Your task to perform on an android device: empty trash in google photos Image 0: 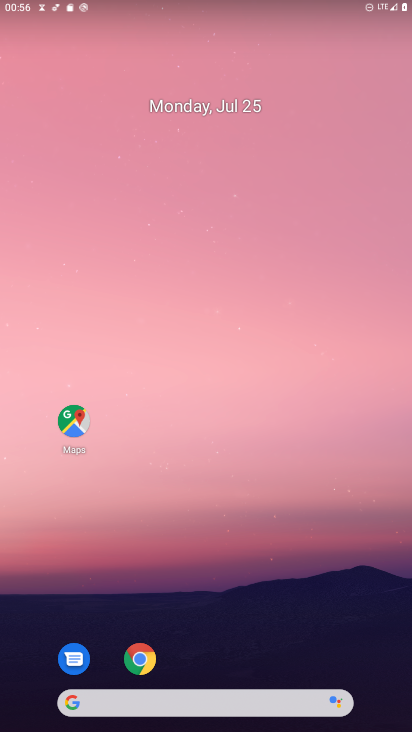
Step 0: drag from (302, 515) to (296, 132)
Your task to perform on an android device: empty trash in google photos Image 1: 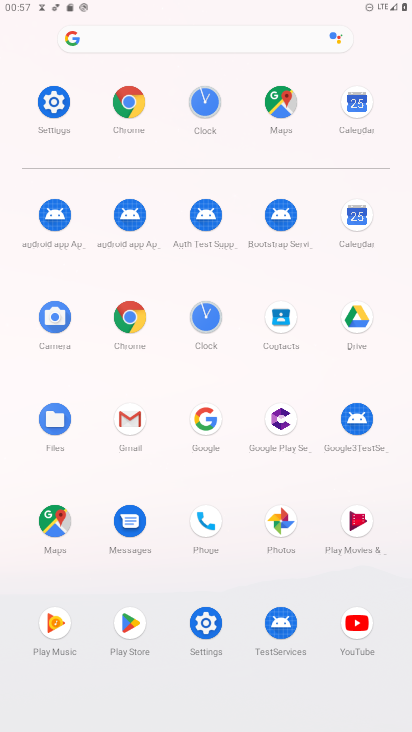
Step 1: click (290, 522)
Your task to perform on an android device: empty trash in google photos Image 2: 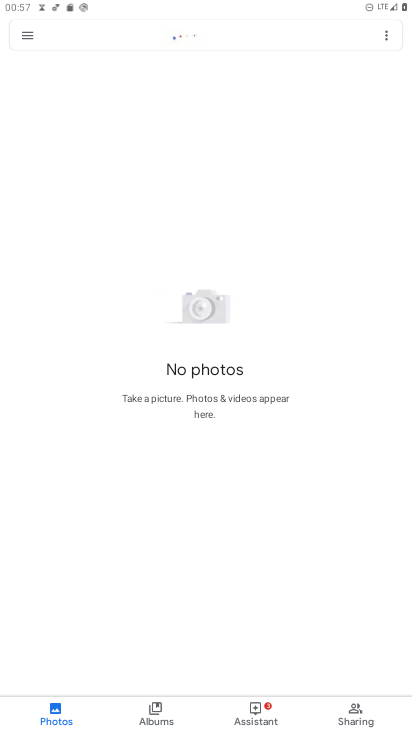
Step 2: click (35, 27)
Your task to perform on an android device: empty trash in google photos Image 3: 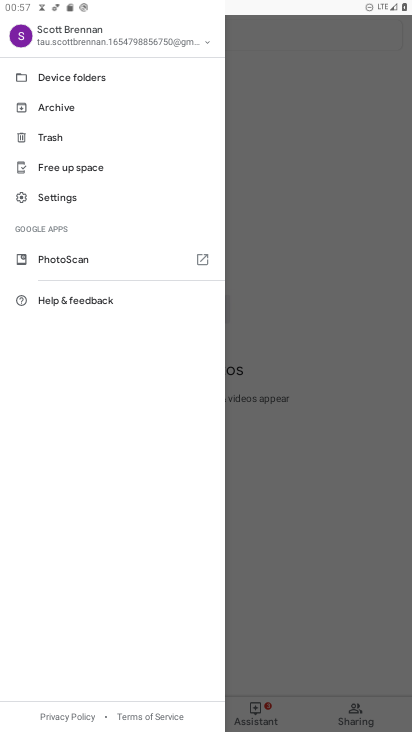
Step 3: click (49, 131)
Your task to perform on an android device: empty trash in google photos Image 4: 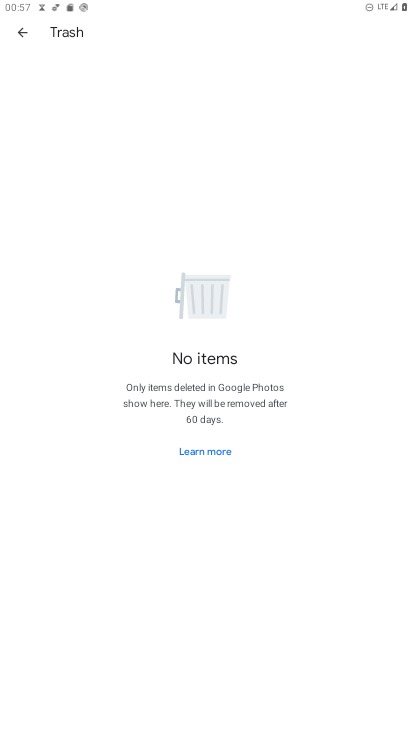
Step 4: task complete